Your task to perform on an android device: Open internet settings Image 0: 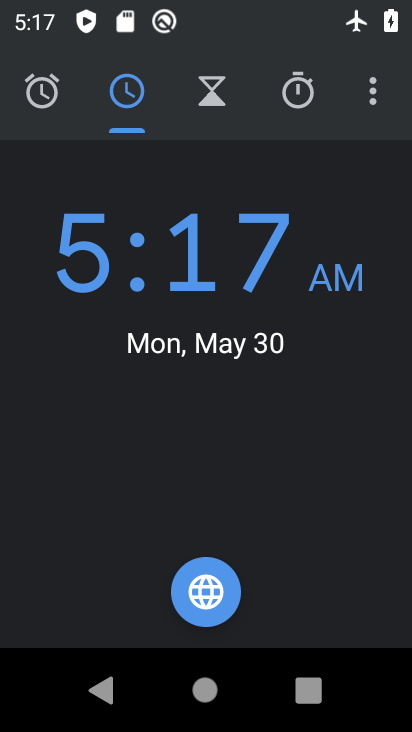
Step 0: press home button
Your task to perform on an android device: Open internet settings Image 1: 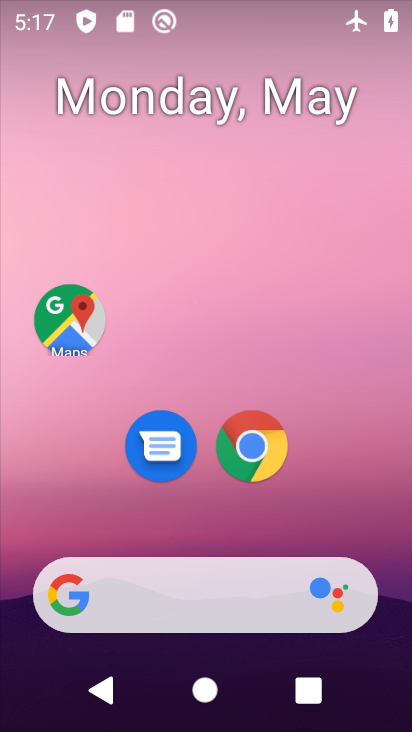
Step 1: drag from (333, 476) to (247, 71)
Your task to perform on an android device: Open internet settings Image 2: 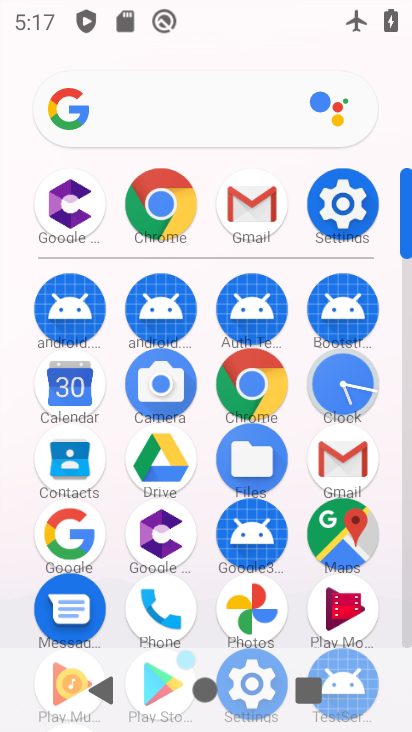
Step 2: click (348, 193)
Your task to perform on an android device: Open internet settings Image 3: 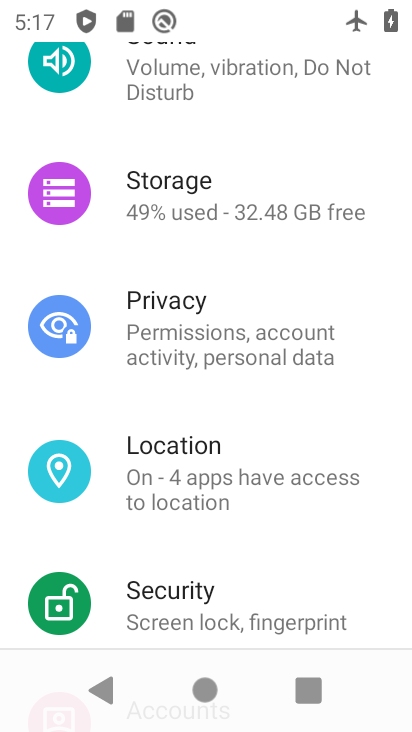
Step 3: drag from (291, 156) to (306, 709)
Your task to perform on an android device: Open internet settings Image 4: 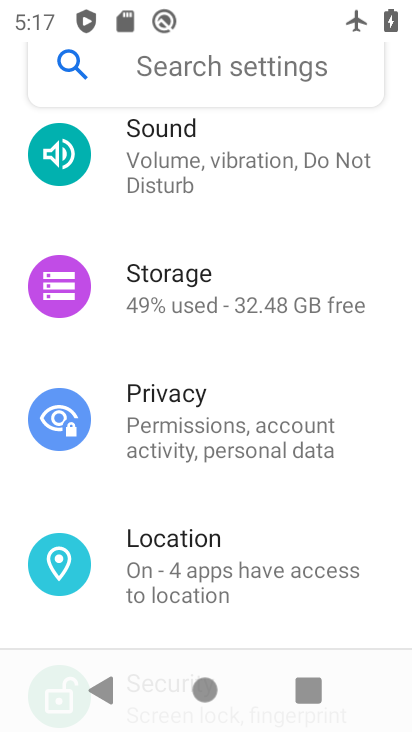
Step 4: drag from (236, 240) to (260, 567)
Your task to perform on an android device: Open internet settings Image 5: 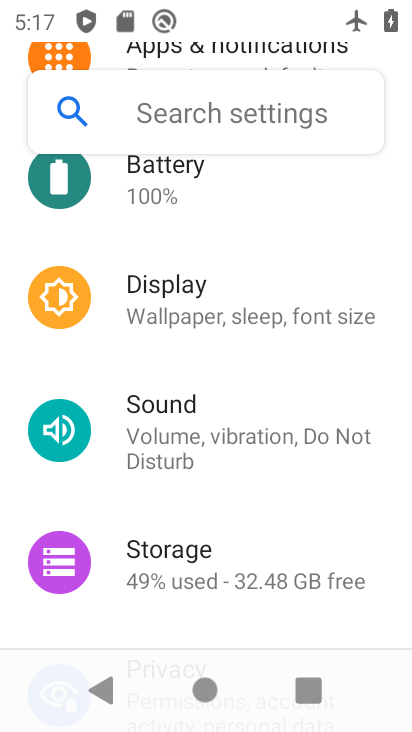
Step 5: drag from (187, 244) to (247, 708)
Your task to perform on an android device: Open internet settings Image 6: 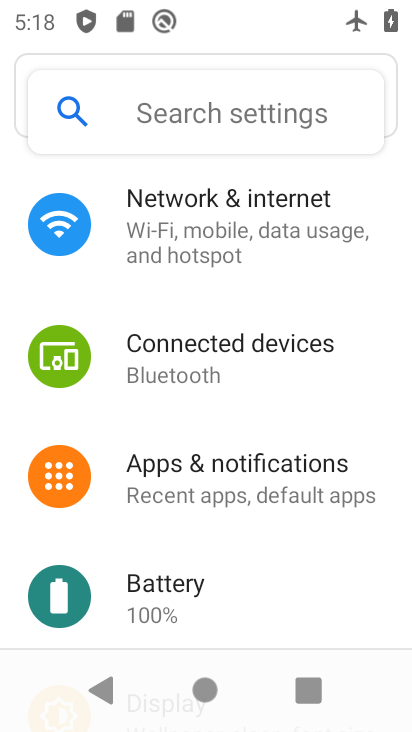
Step 6: click (193, 218)
Your task to perform on an android device: Open internet settings Image 7: 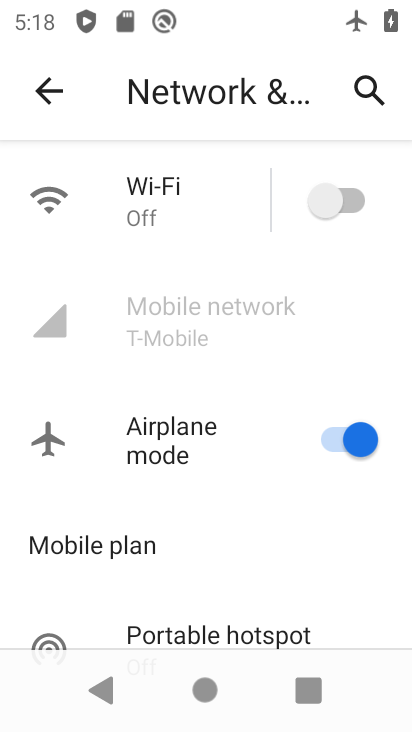
Step 7: task complete